Your task to perform on an android device: Clear the shopping cart on bestbuy. Add jbl flip 4 to the cart on bestbuy, then select checkout. Image 0: 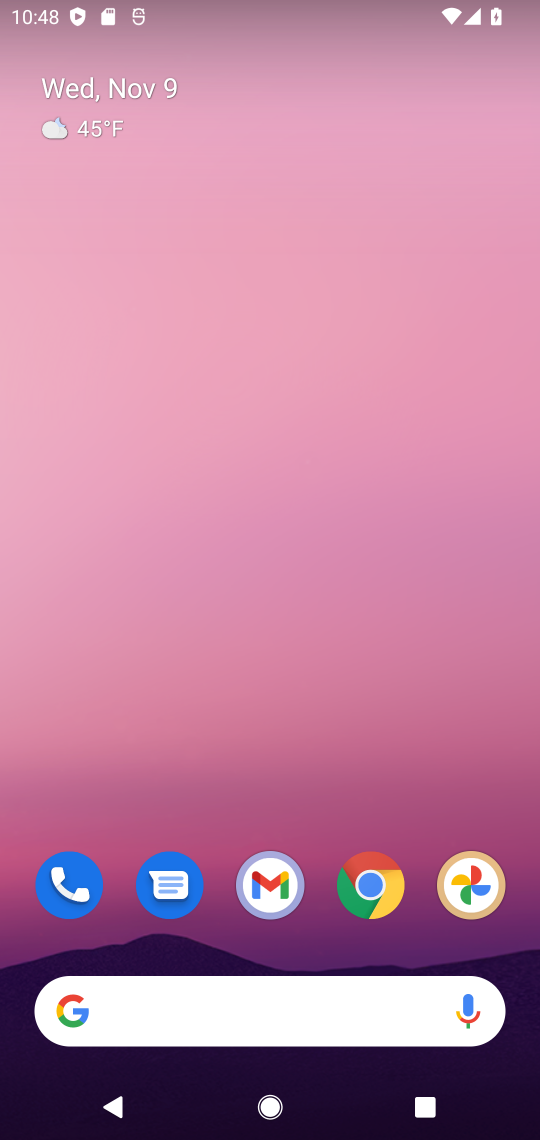
Step 0: click (372, 898)
Your task to perform on an android device: Clear the shopping cart on bestbuy. Add jbl flip 4 to the cart on bestbuy, then select checkout. Image 1: 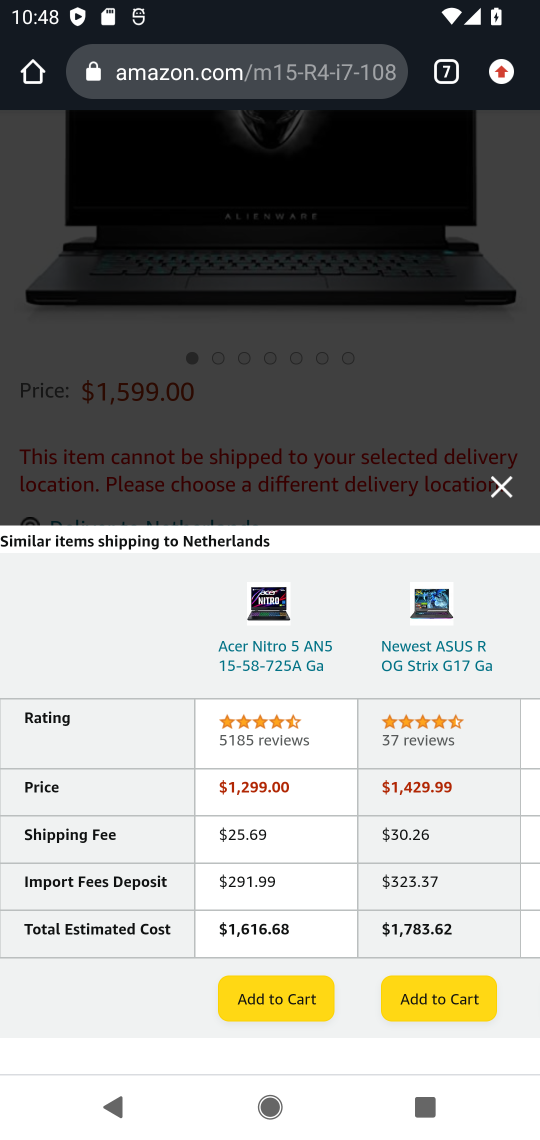
Step 1: click (450, 73)
Your task to perform on an android device: Clear the shopping cart on bestbuy. Add jbl flip 4 to the cart on bestbuy, then select checkout. Image 2: 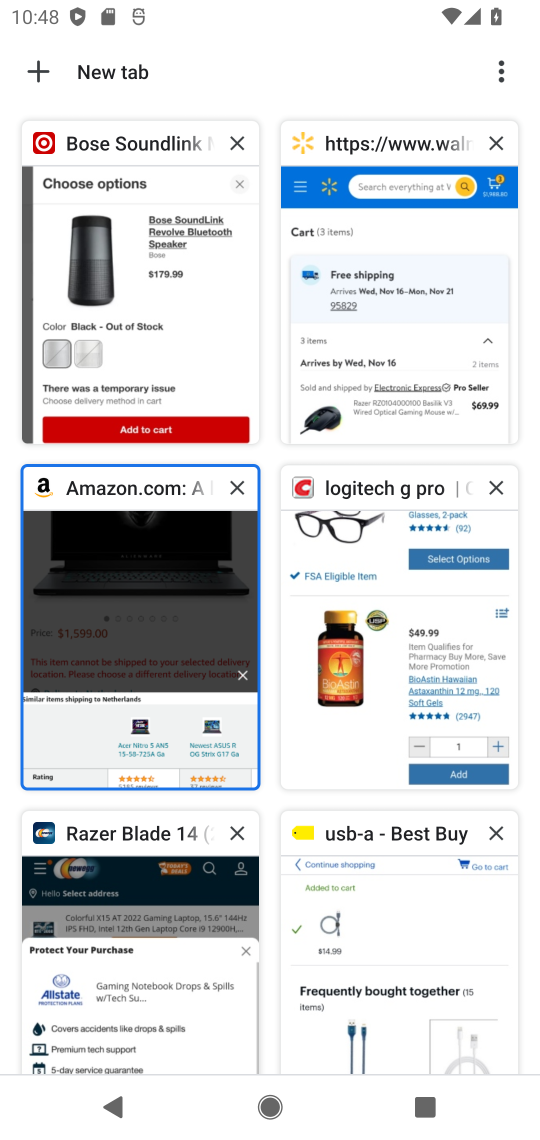
Step 2: click (323, 842)
Your task to perform on an android device: Clear the shopping cart on bestbuy. Add jbl flip 4 to the cart on bestbuy, then select checkout. Image 3: 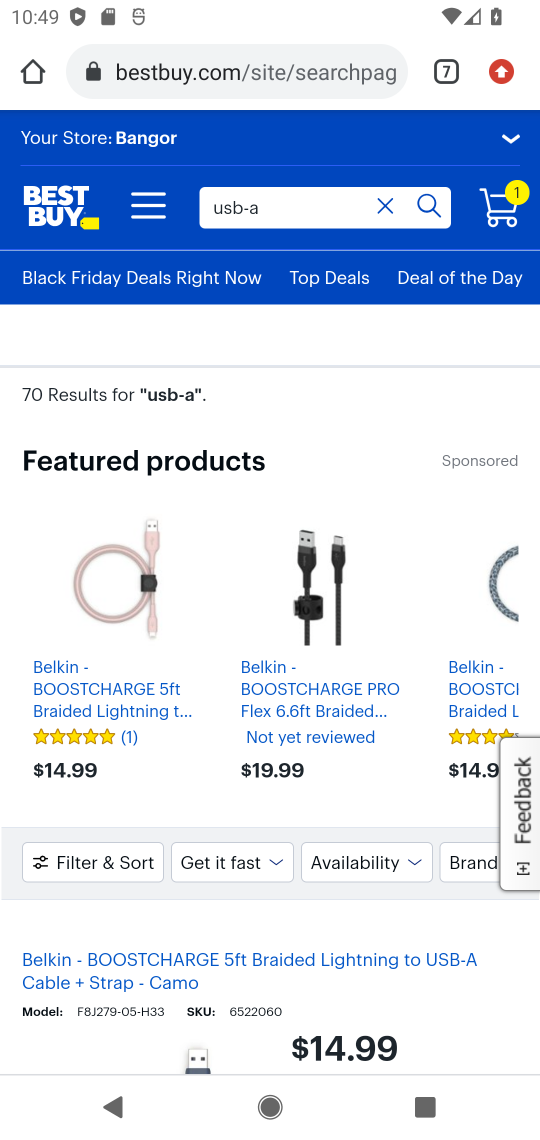
Step 3: click (508, 191)
Your task to perform on an android device: Clear the shopping cart on bestbuy. Add jbl flip 4 to the cart on bestbuy, then select checkout. Image 4: 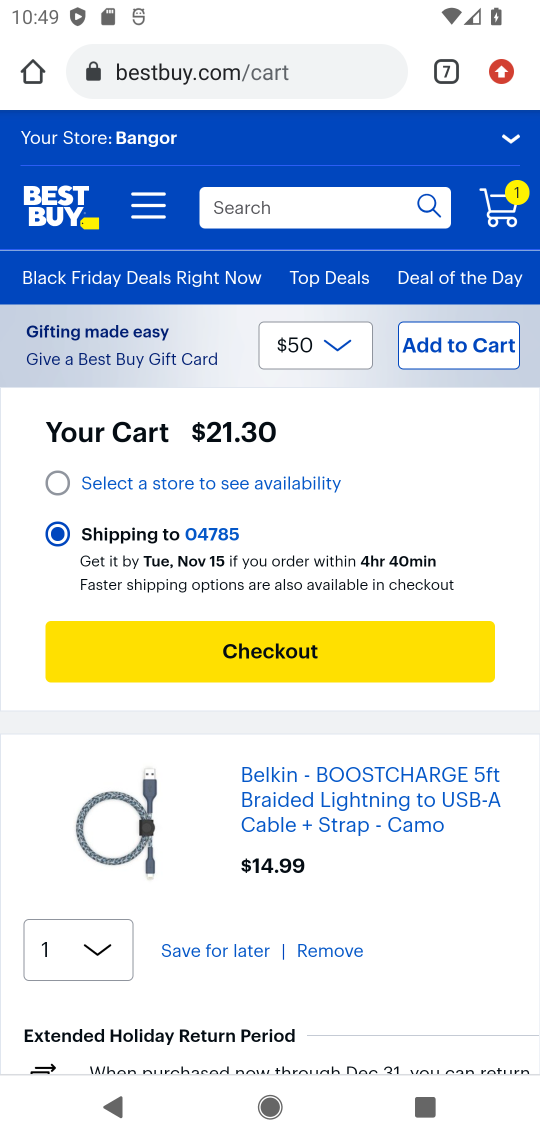
Step 4: click (327, 947)
Your task to perform on an android device: Clear the shopping cart on bestbuy. Add jbl flip 4 to the cart on bestbuy, then select checkout. Image 5: 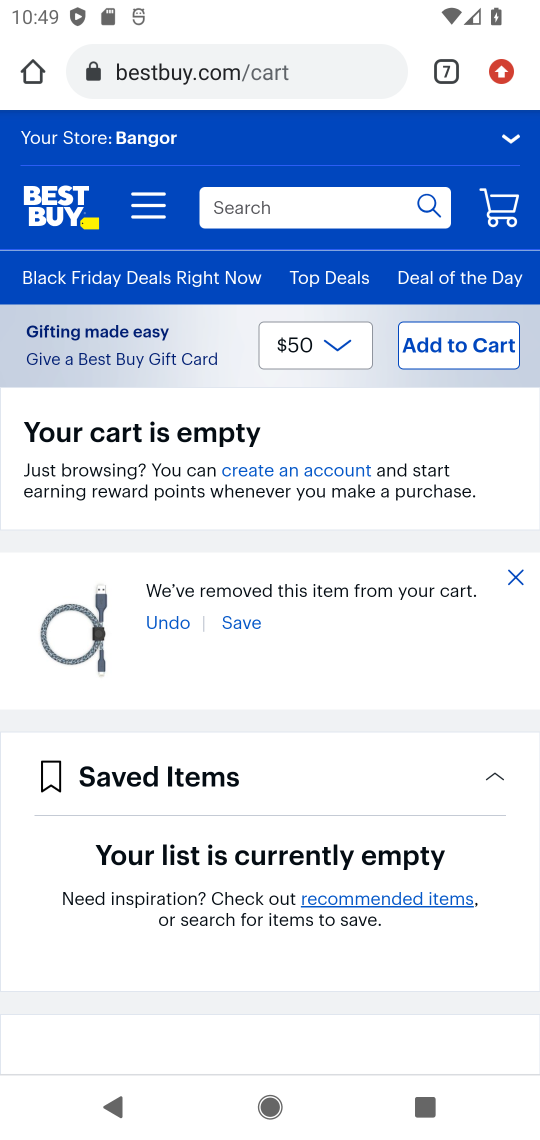
Step 5: click (271, 211)
Your task to perform on an android device: Clear the shopping cart on bestbuy. Add jbl flip 4 to the cart on bestbuy, then select checkout. Image 6: 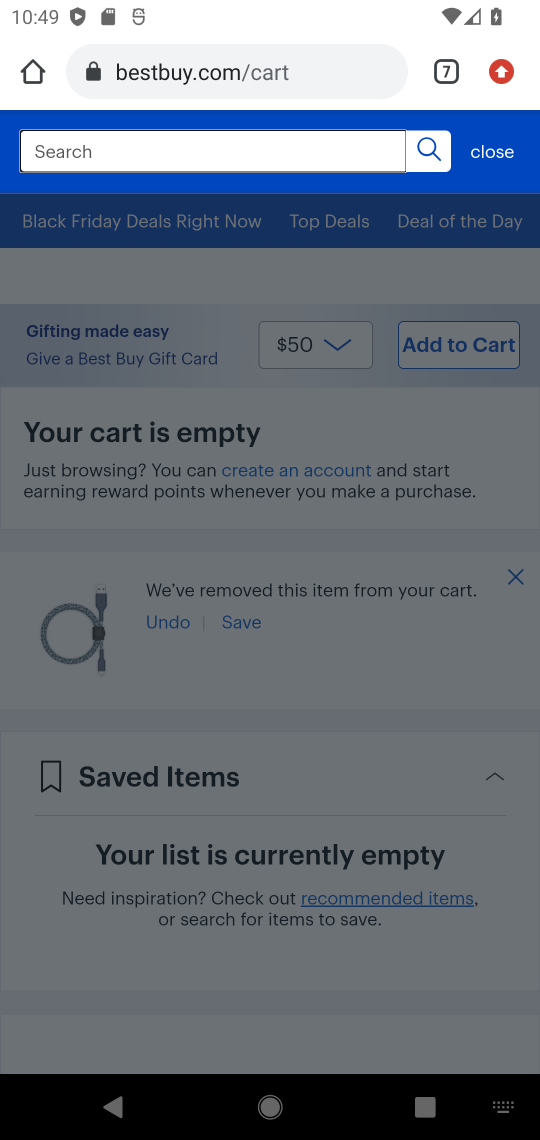
Step 6: type "jbl flip 4"
Your task to perform on an android device: Clear the shopping cart on bestbuy. Add jbl flip 4 to the cart on bestbuy, then select checkout. Image 7: 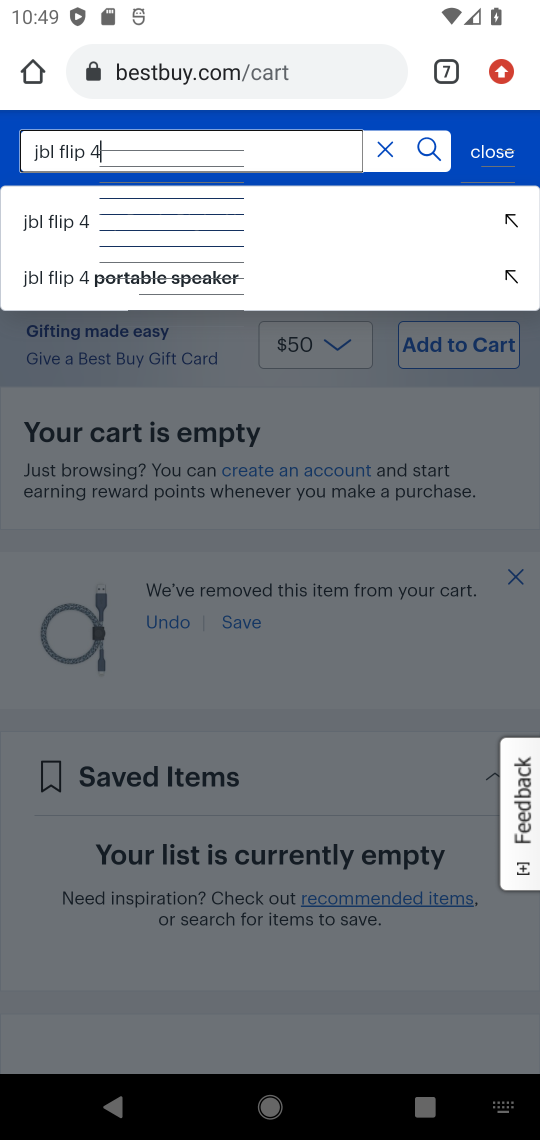
Step 7: click (52, 217)
Your task to perform on an android device: Clear the shopping cart on bestbuy. Add jbl flip 4 to the cart on bestbuy, then select checkout. Image 8: 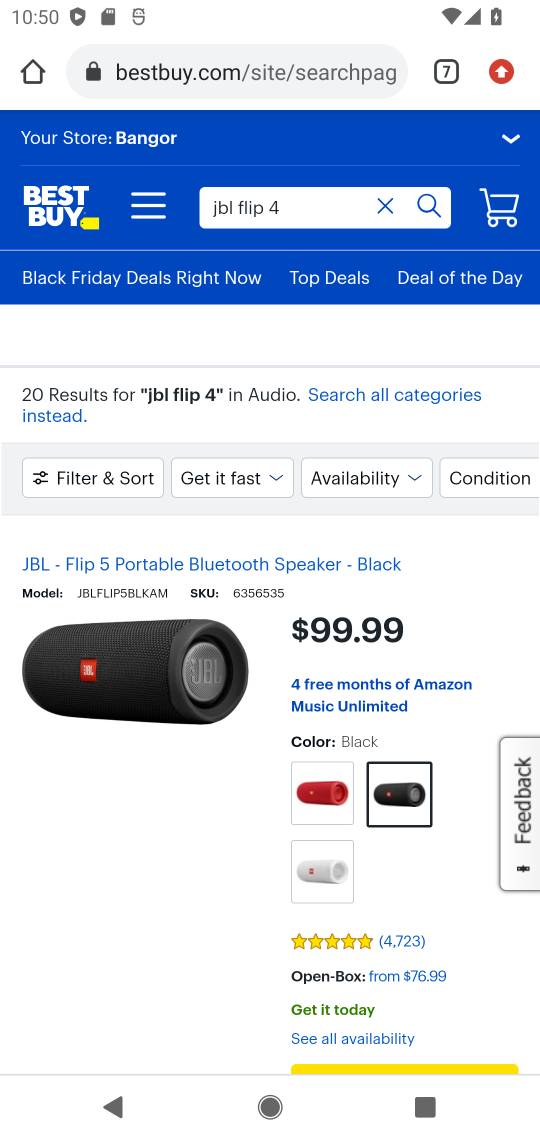
Step 8: drag from (428, 949) to (413, 542)
Your task to perform on an android device: Clear the shopping cart on bestbuy. Add jbl flip 4 to the cart on bestbuy, then select checkout. Image 9: 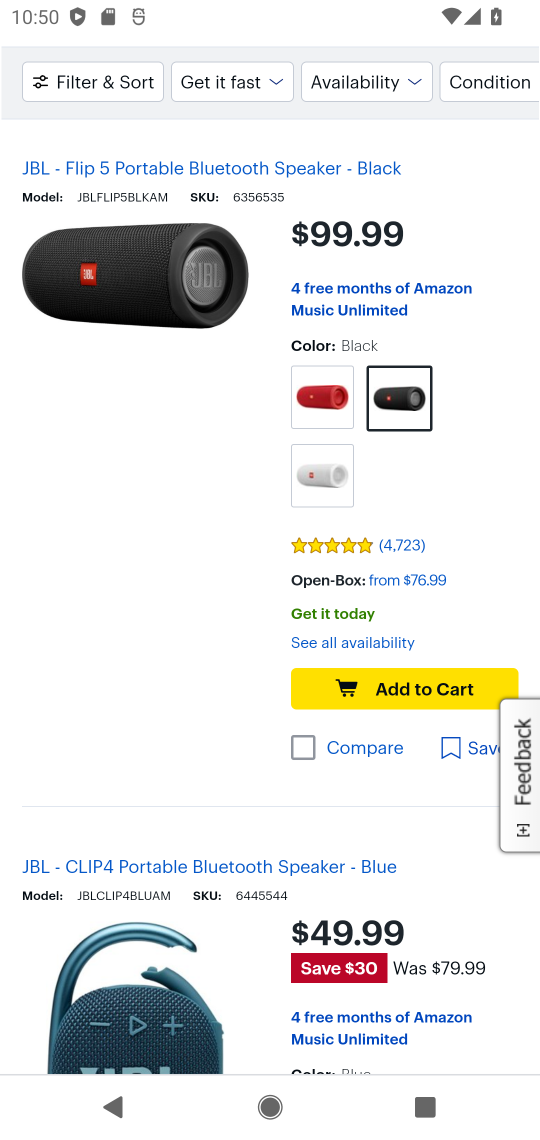
Step 9: drag from (430, 933) to (399, 499)
Your task to perform on an android device: Clear the shopping cart on bestbuy. Add jbl flip 4 to the cart on bestbuy, then select checkout. Image 10: 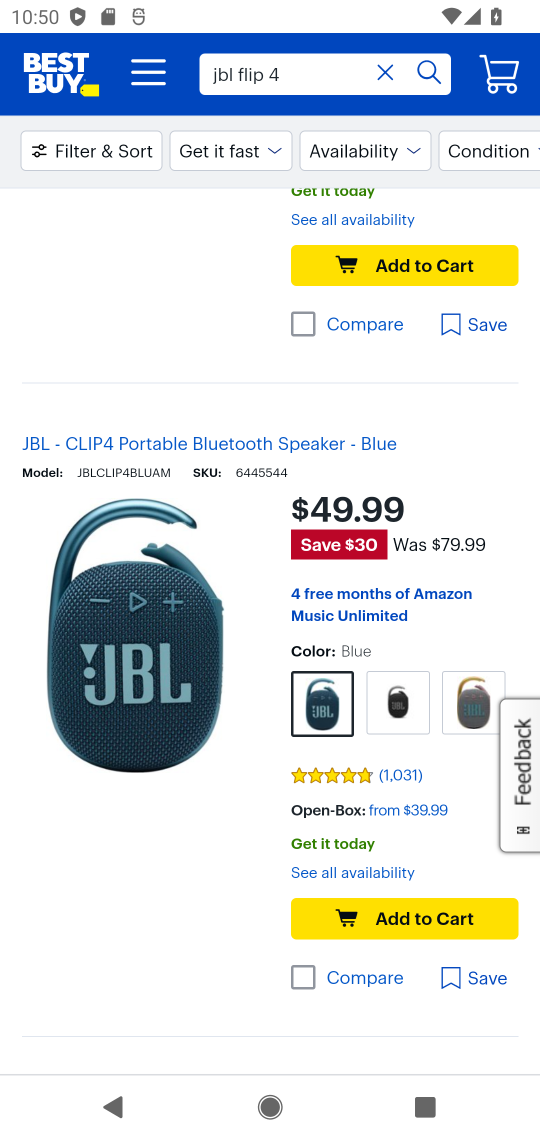
Step 10: click (412, 917)
Your task to perform on an android device: Clear the shopping cart on bestbuy. Add jbl flip 4 to the cart on bestbuy, then select checkout. Image 11: 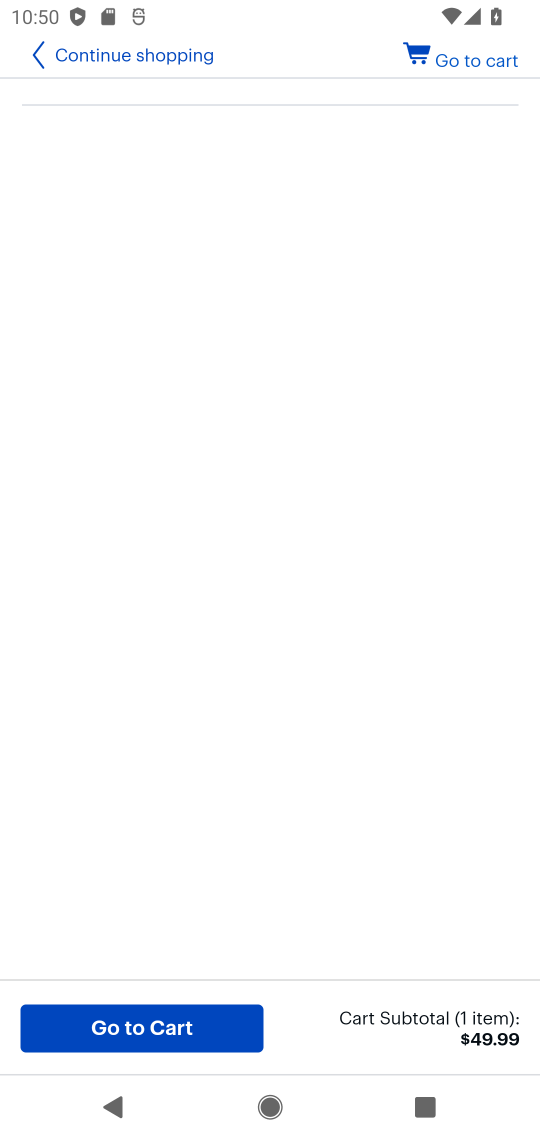
Step 11: click (504, 75)
Your task to perform on an android device: Clear the shopping cart on bestbuy. Add jbl flip 4 to the cart on bestbuy, then select checkout. Image 12: 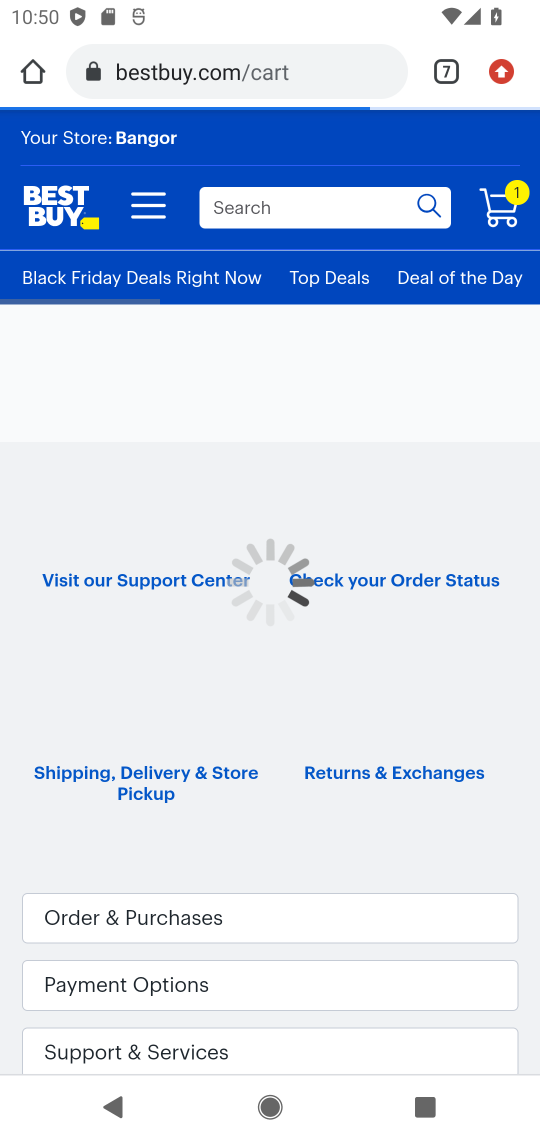
Step 12: click (448, 140)
Your task to perform on an android device: Clear the shopping cart on bestbuy. Add jbl flip 4 to the cart on bestbuy, then select checkout. Image 13: 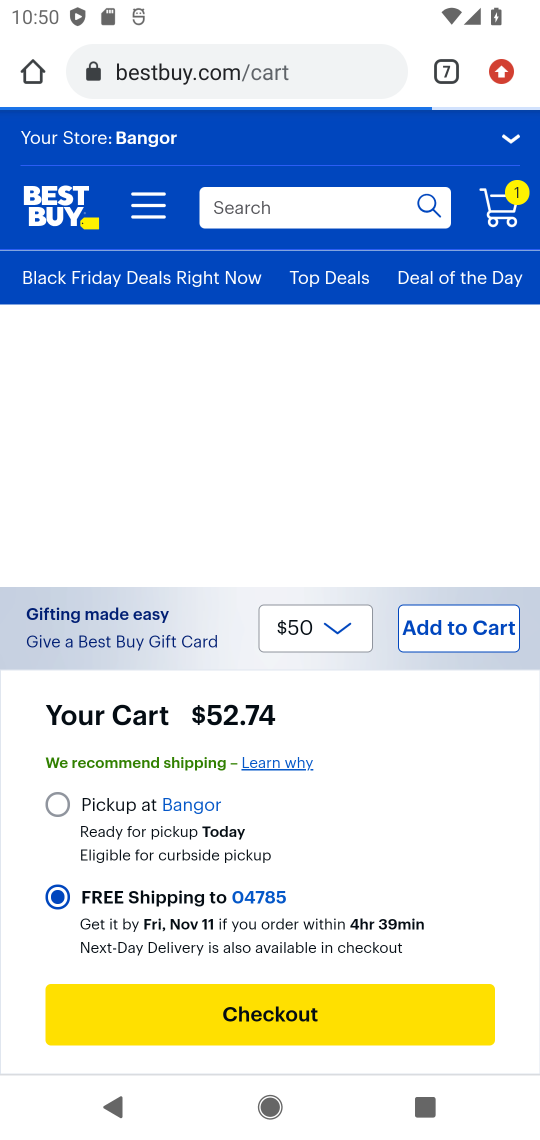
Step 13: click (295, 1020)
Your task to perform on an android device: Clear the shopping cart on bestbuy. Add jbl flip 4 to the cart on bestbuy, then select checkout. Image 14: 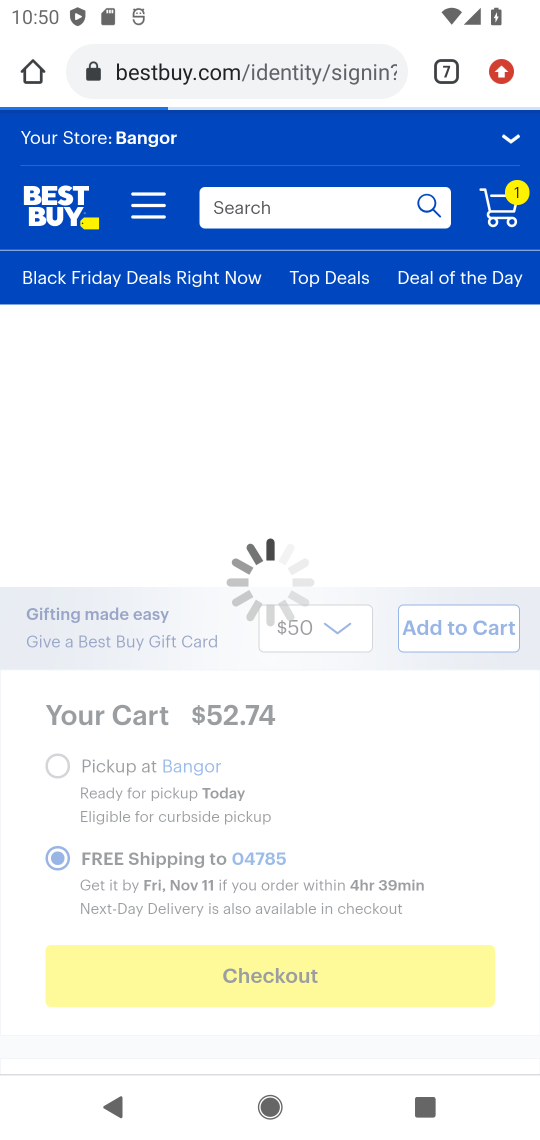
Step 14: task complete